Your task to perform on an android device: Search for acer predator on bestbuy.com, select the first entry, and add it to the cart. Image 0: 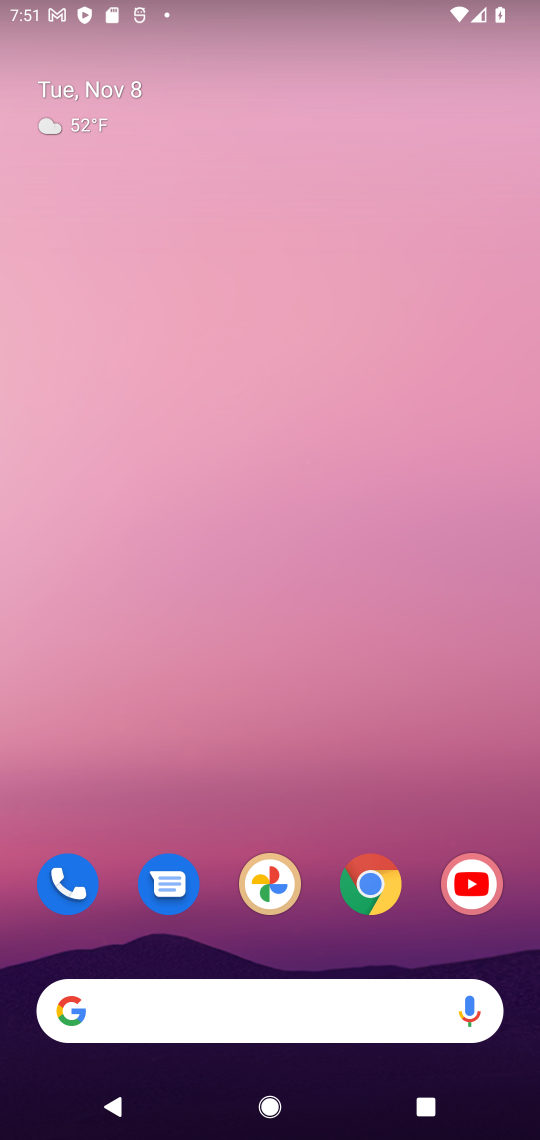
Step 0: drag from (332, 937) to (369, 321)
Your task to perform on an android device: Search for acer predator on bestbuy.com, select the first entry, and add it to the cart. Image 1: 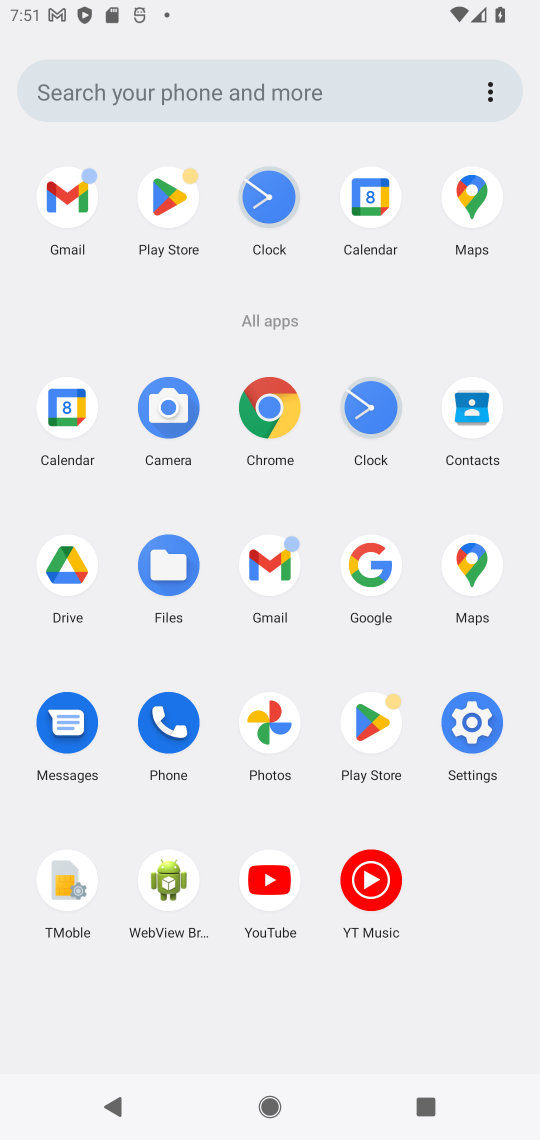
Step 1: click (381, 580)
Your task to perform on an android device: Search for acer predator on bestbuy.com, select the first entry, and add it to the cart. Image 2: 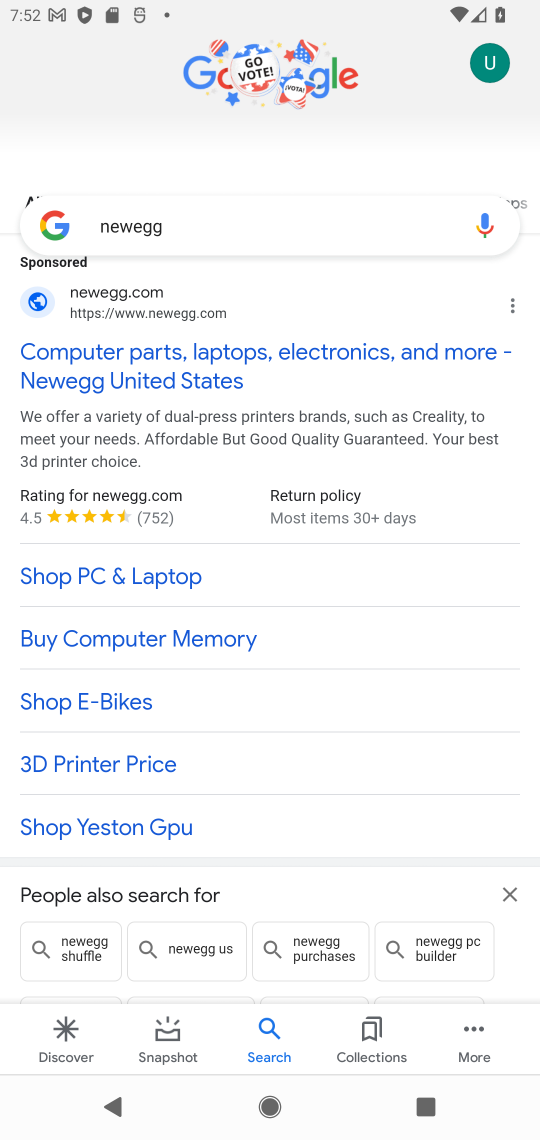
Step 2: click (304, 219)
Your task to perform on an android device: Search for acer predator on bestbuy.com, select the first entry, and add it to the cart. Image 3: 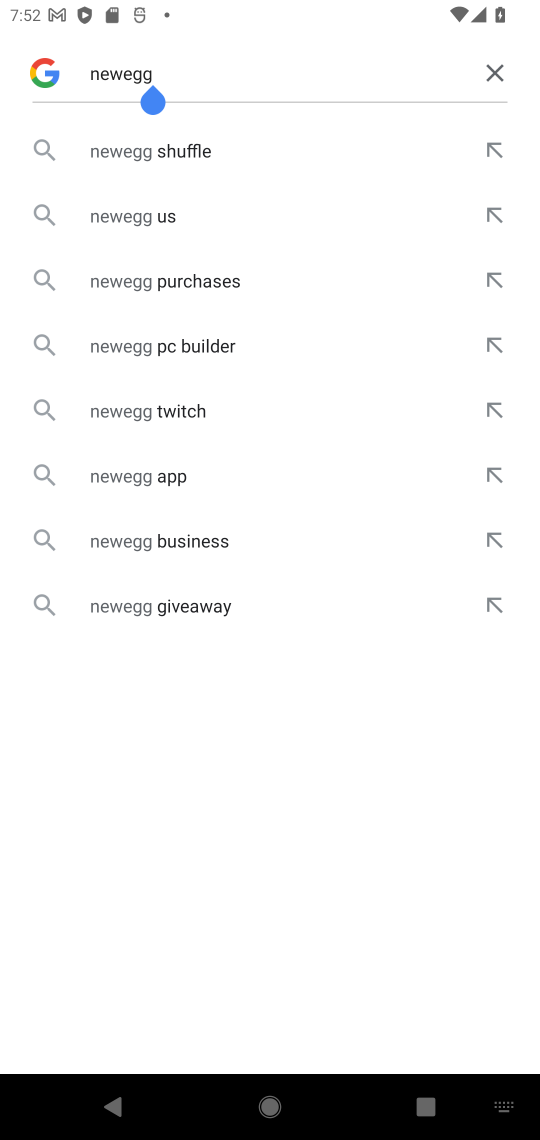
Step 3: click (498, 73)
Your task to perform on an android device: Search for acer predator on bestbuy.com, select the first entry, and add it to the cart. Image 4: 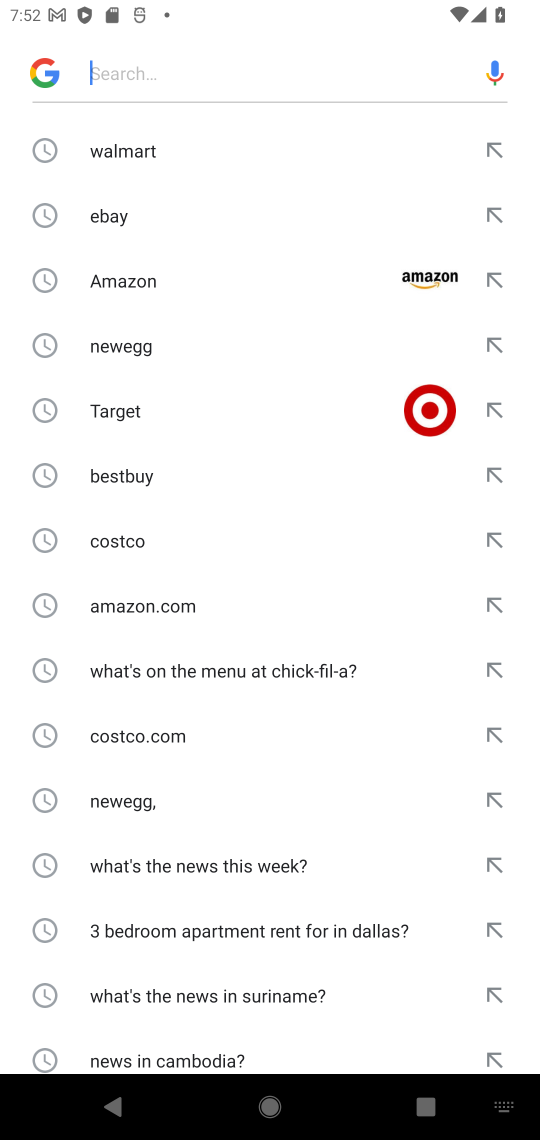
Step 4: type "bestbuy.com"
Your task to perform on an android device: Search for acer predator on bestbuy.com, select the first entry, and add it to the cart. Image 5: 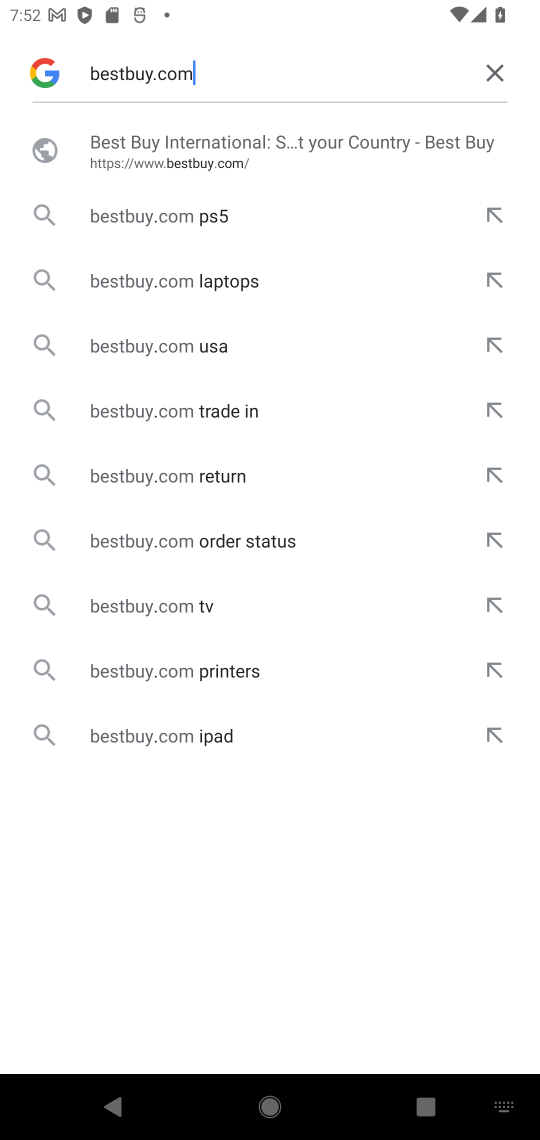
Step 5: click (259, 144)
Your task to perform on an android device: Search for acer predator on bestbuy.com, select the first entry, and add it to the cart. Image 6: 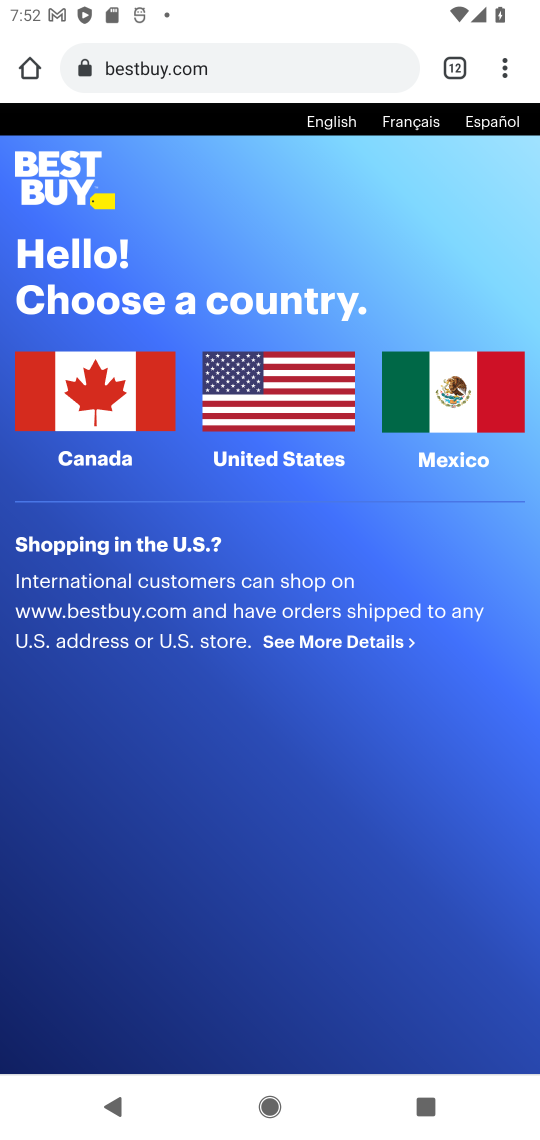
Step 6: click (318, 423)
Your task to perform on an android device: Search for acer predator on bestbuy.com, select the first entry, and add it to the cart. Image 7: 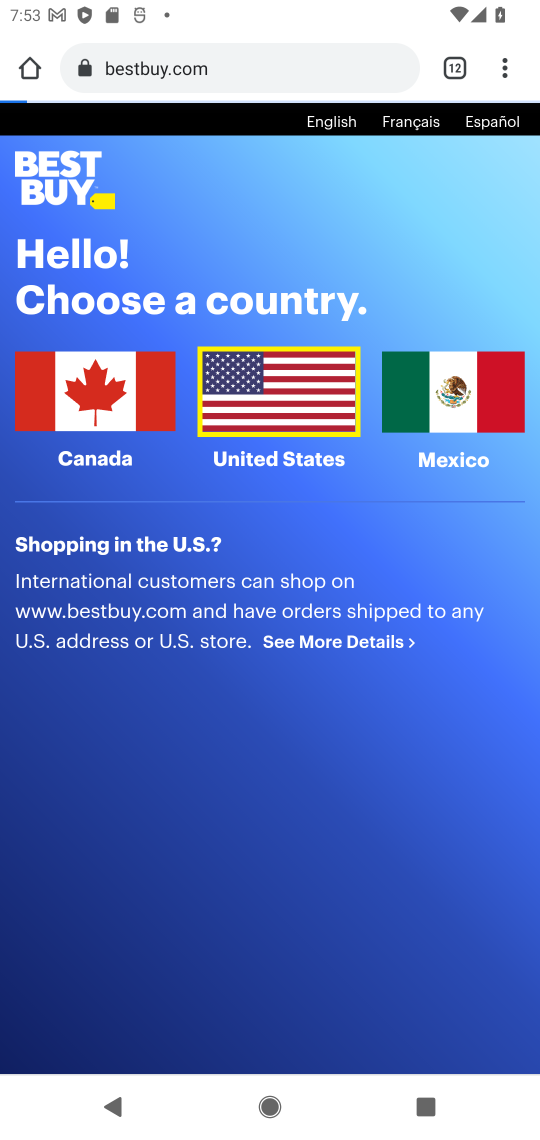
Step 7: click (318, 423)
Your task to perform on an android device: Search for acer predator on bestbuy.com, select the first entry, and add it to the cart. Image 8: 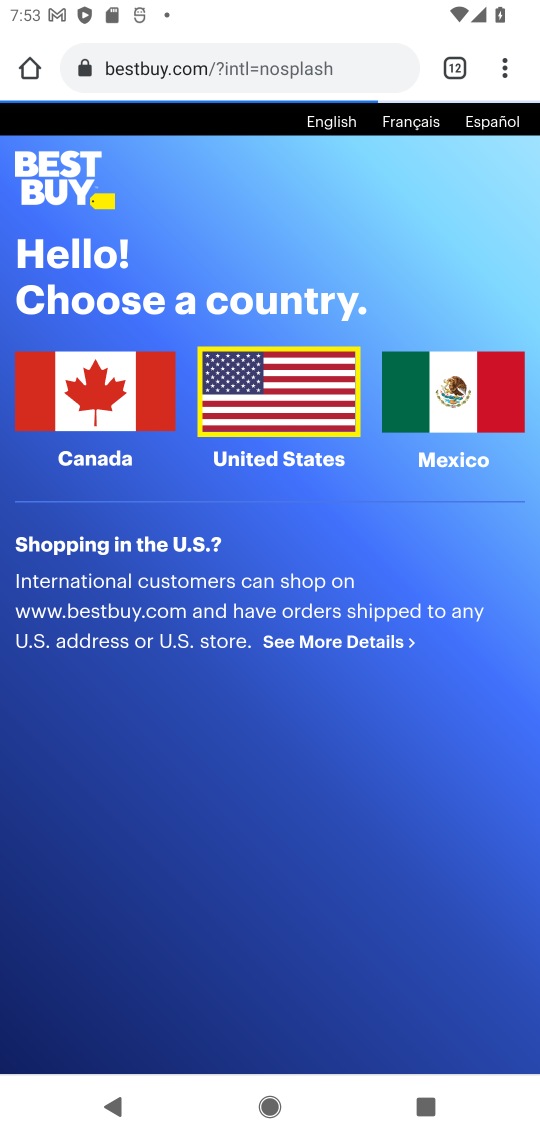
Step 8: click (298, 383)
Your task to perform on an android device: Search for acer predator on bestbuy.com, select the first entry, and add it to the cart. Image 9: 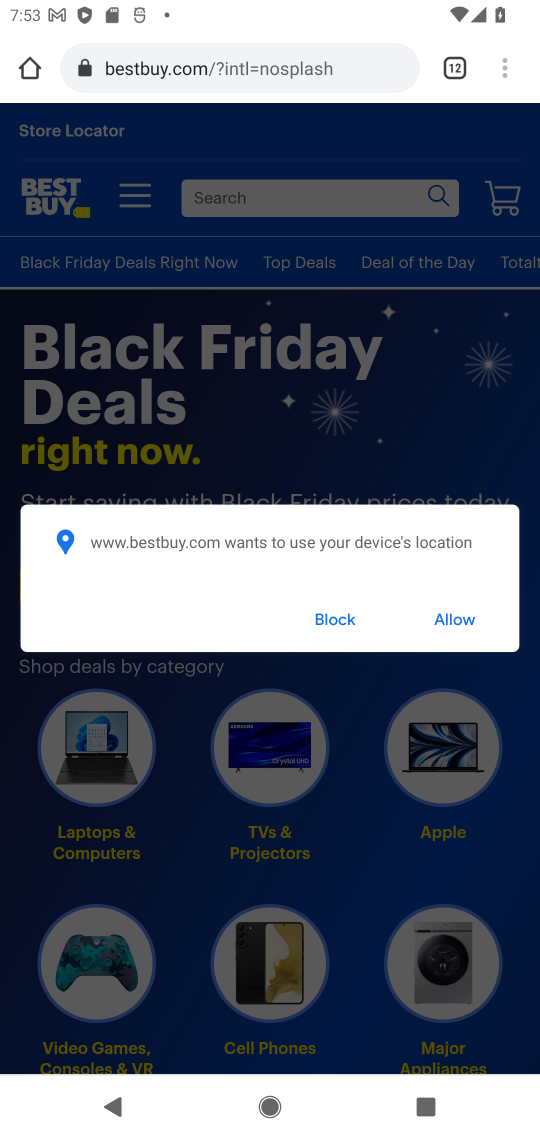
Step 9: click (327, 625)
Your task to perform on an android device: Search for acer predator on bestbuy.com, select the first entry, and add it to the cart. Image 10: 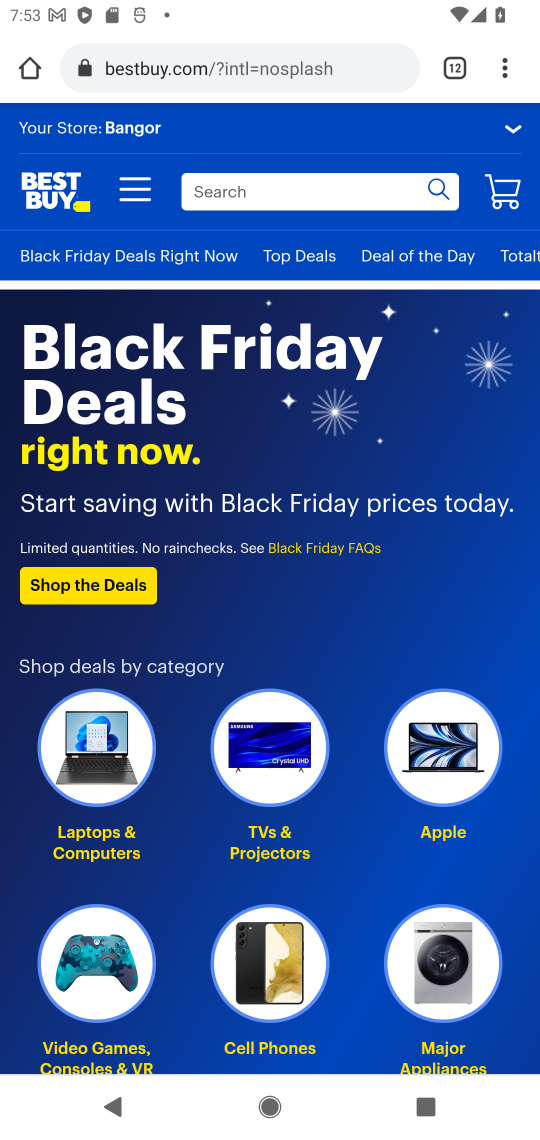
Step 10: click (265, 191)
Your task to perform on an android device: Search for acer predator on bestbuy.com, select the first entry, and add it to the cart. Image 11: 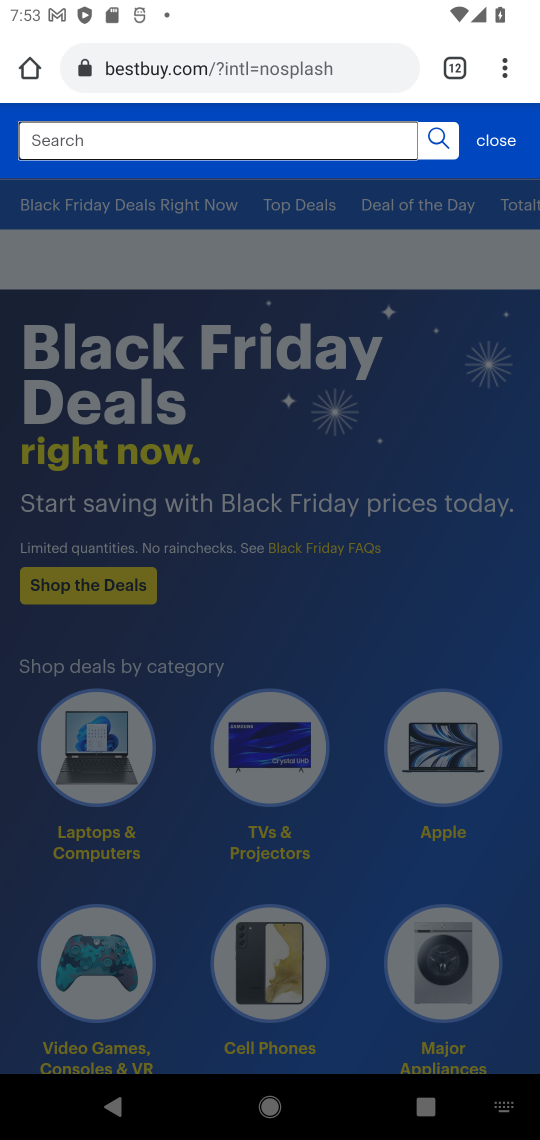
Step 11: type "acer predator"
Your task to perform on an android device: Search for acer predator on bestbuy.com, select the first entry, and add it to the cart. Image 12: 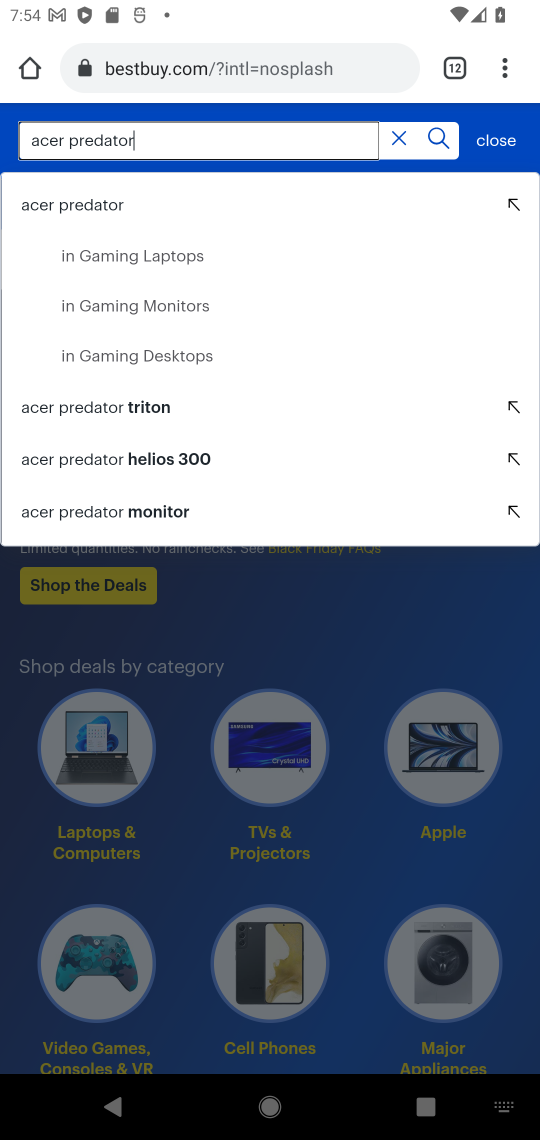
Step 12: click (140, 193)
Your task to perform on an android device: Search for acer predator on bestbuy.com, select the first entry, and add it to the cart. Image 13: 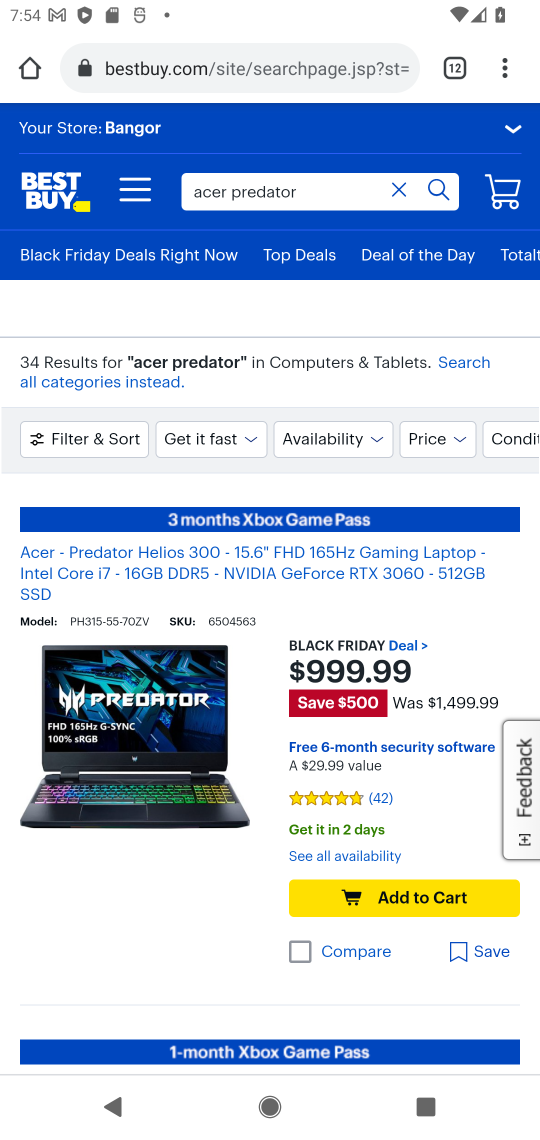
Step 13: click (368, 902)
Your task to perform on an android device: Search for acer predator on bestbuy.com, select the first entry, and add it to the cart. Image 14: 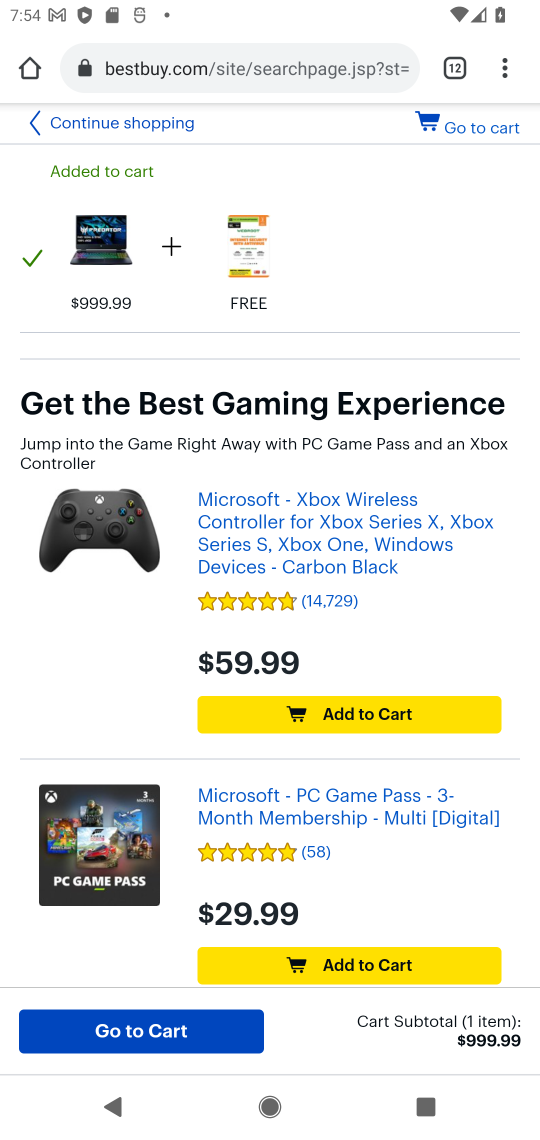
Step 14: task complete